Your task to perform on an android device: turn off wifi Image 0: 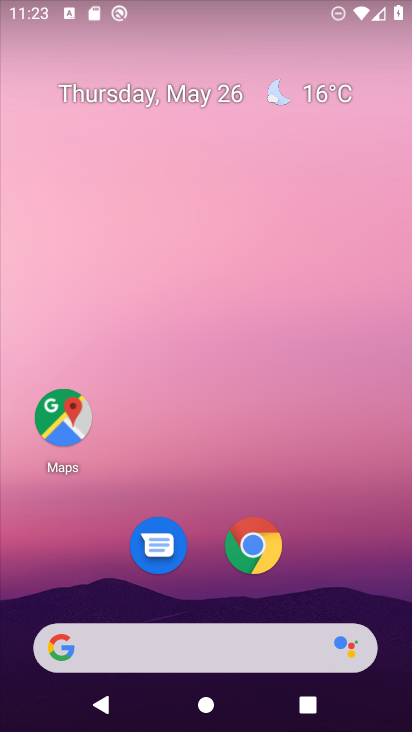
Step 0: press home button
Your task to perform on an android device: turn off wifi Image 1: 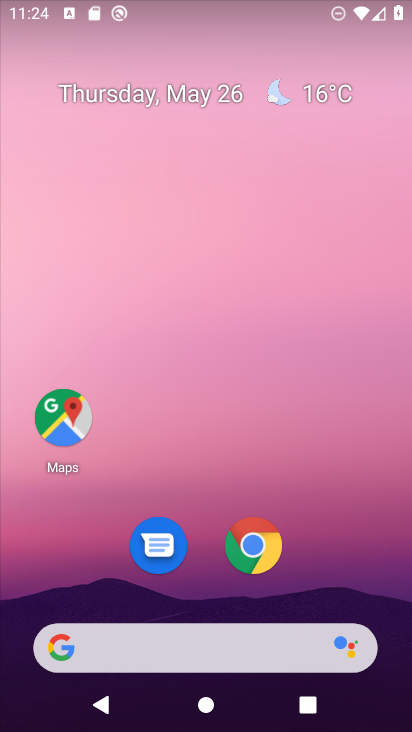
Step 1: drag from (196, 13) to (184, 312)
Your task to perform on an android device: turn off wifi Image 2: 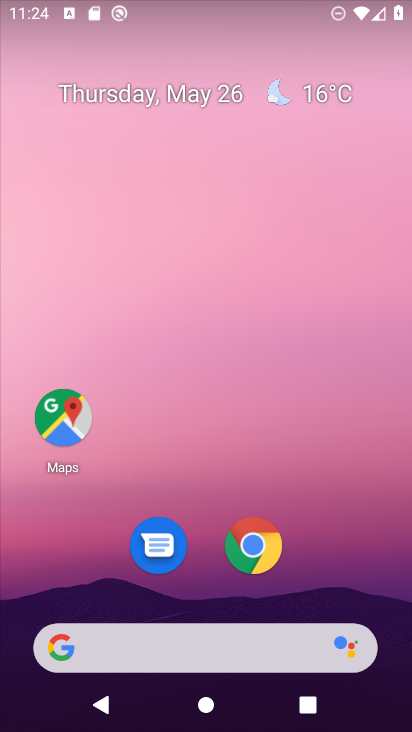
Step 2: drag from (214, 29) to (215, 335)
Your task to perform on an android device: turn off wifi Image 3: 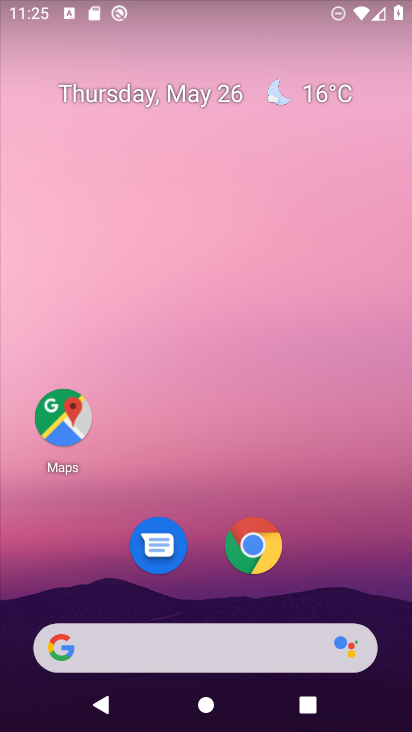
Step 3: drag from (205, 18) to (196, 403)
Your task to perform on an android device: turn off wifi Image 4: 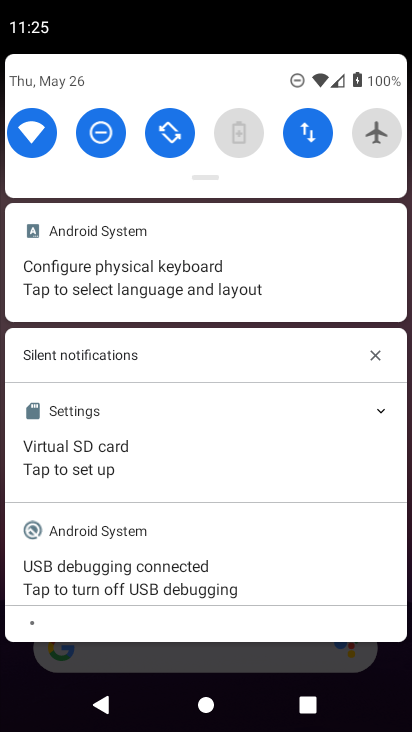
Step 4: click (32, 134)
Your task to perform on an android device: turn off wifi Image 5: 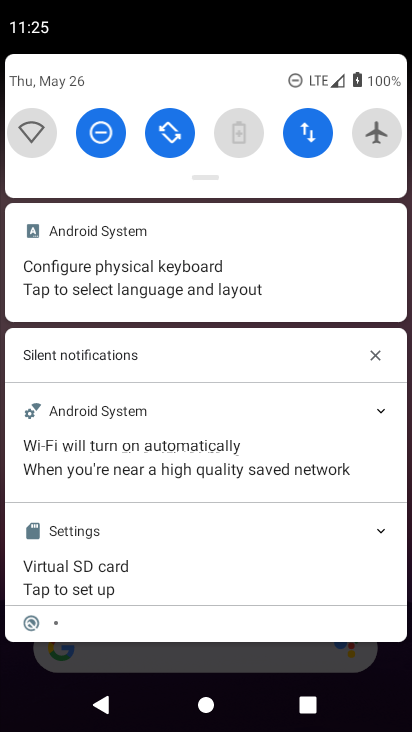
Step 5: task complete